Your task to perform on an android device: Clear the shopping cart on walmart. Search for "beats solo 3" on walmart, select the first entry, add it to the cart, then select checkout. Image 0: 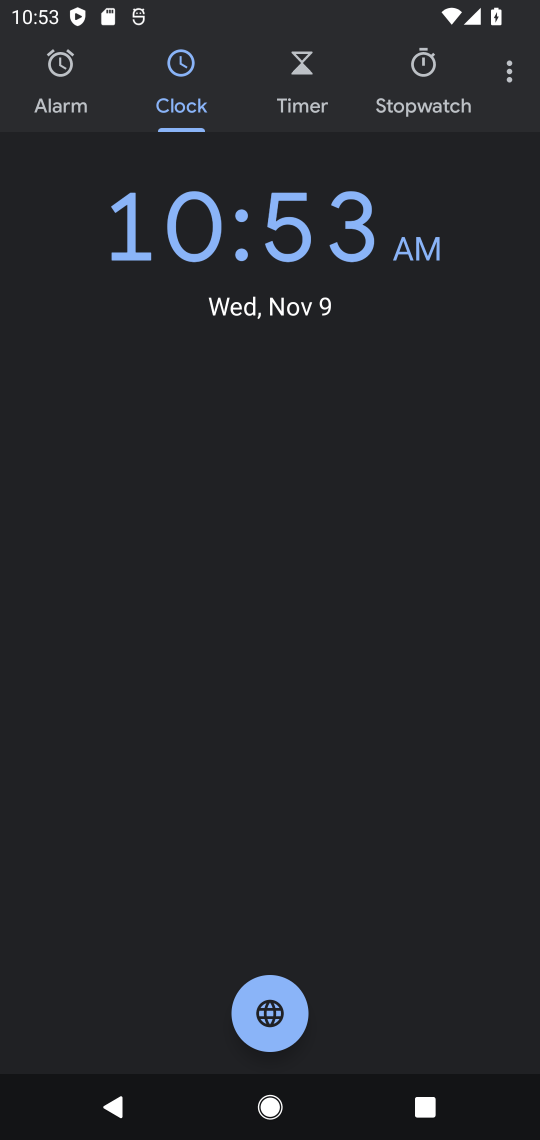
Step 0: press home button
Your task to perform on an android device: Clear the shopping cart on walmart. Search for "beats solo 3" on walmart, select the first entry, add it to the cart, then select checkout. Image 1: 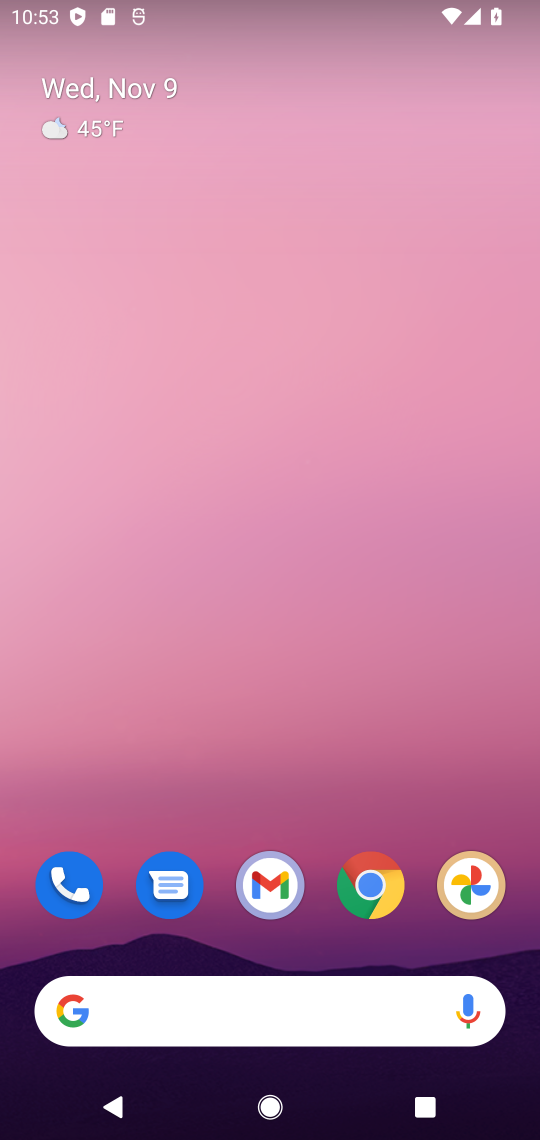
Step 1: click (370, 878)
Your task to perform on an android device: Clear the shopping cart on walmart. Search for "beats solo 3" on walmart, select the first entry, add it to the cart, then select checkout. Image 2: 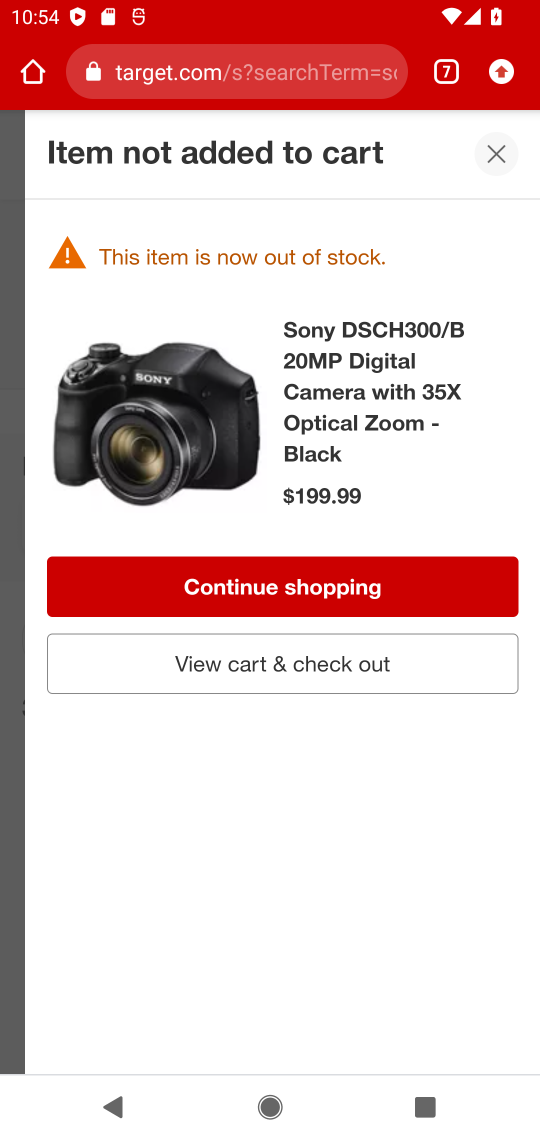
Step 2: click (448, 80)
Your task to perform on an android device: Clear the shopping cart on walmart. Search for "beats solo 3" on walmart, select the first entry, add it to the cart, then select checkout. Image 3: 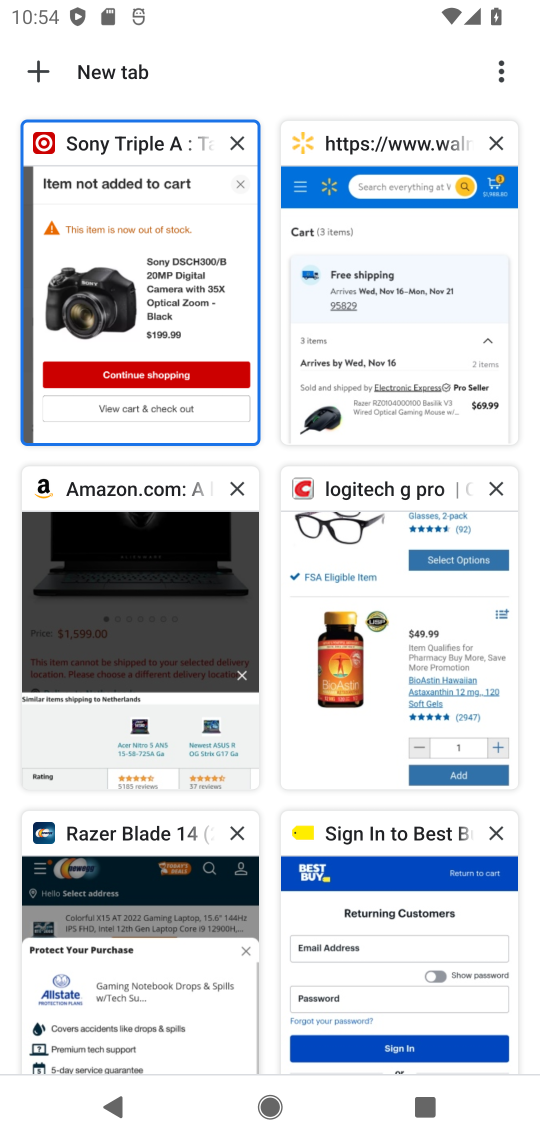
Step 3: click (444, 373)
Your task to perform on an android device: Clear the shopping cart on walmart. Search for "beats solo 3" on walmart, select the first entry, add it to the cart, then select checkout. Image 4: 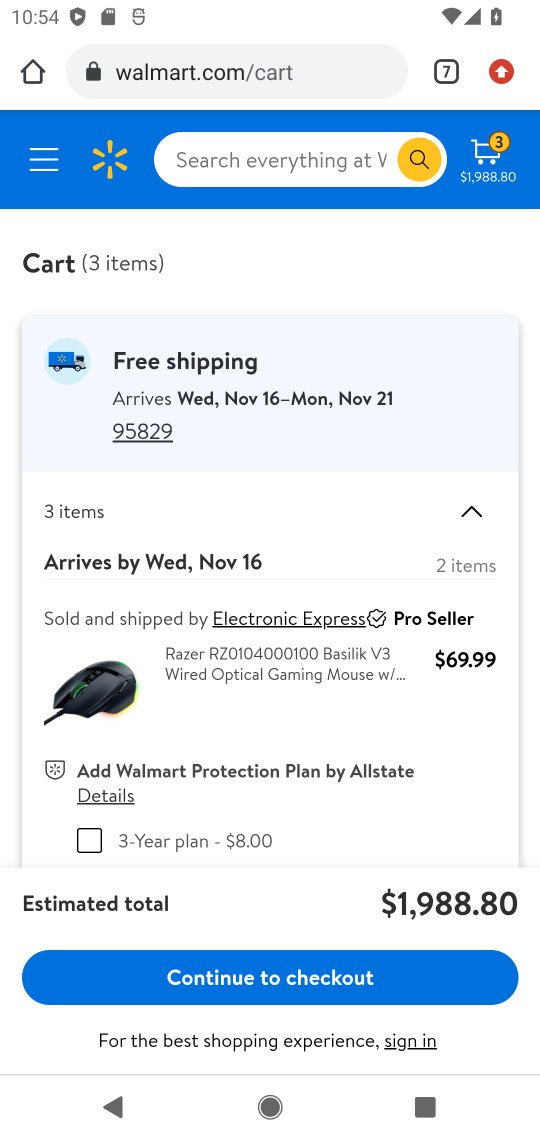
Step 4: drag from (178, 805) to (187, 498)
Your task to perform on an android device: Clear the shopping cart on walmart. Search for "beats solo 3" on walmart, select the first entry, add it to the cart, then select checkout. Image 5: 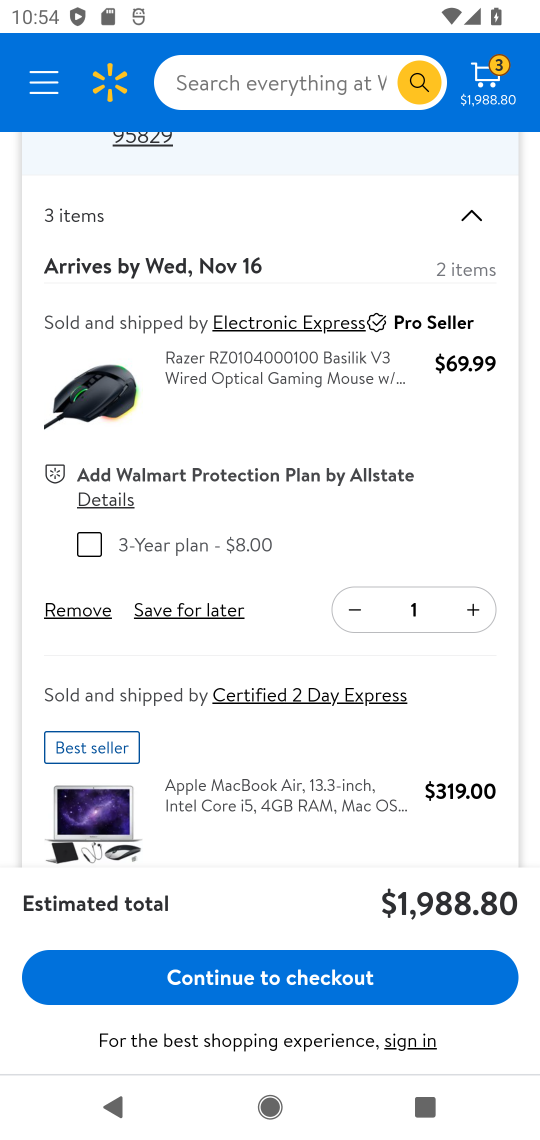
Step 5: click (91, 612)
Your task to perform on an android device: Clear the shopping cart on walmart. Search for "beats solo 3" on walmart, select the first entry, add it to the cart, then select checkout. Image 6: 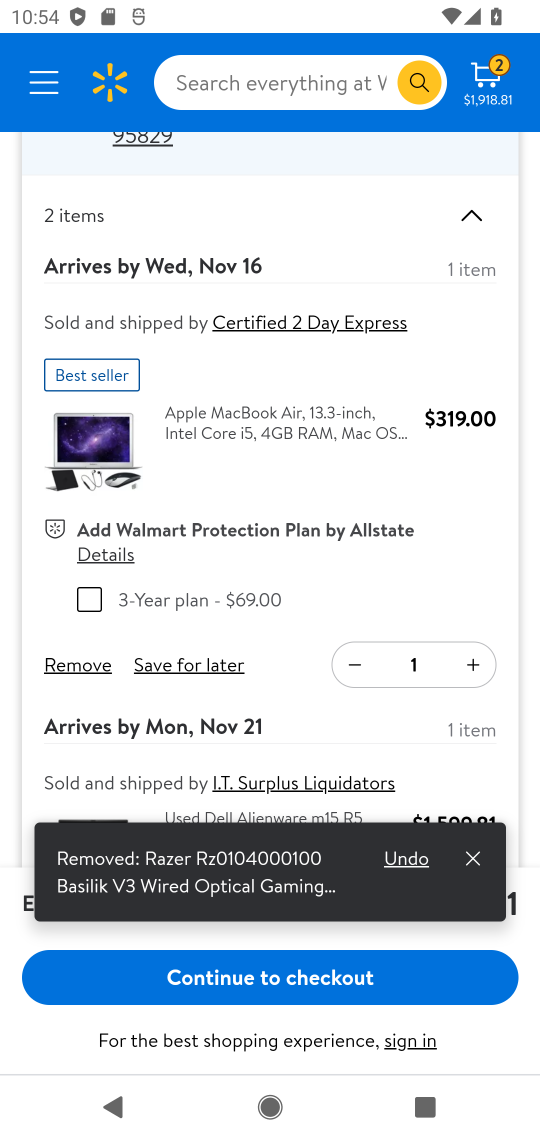
Step 6: click (80, 662)
Your task to perform on an android device: Clear the shopping cart on walmart. Search for "beats solo 3" on walmart, select the first entry, add it to the cart, then select checkout. Image 7: 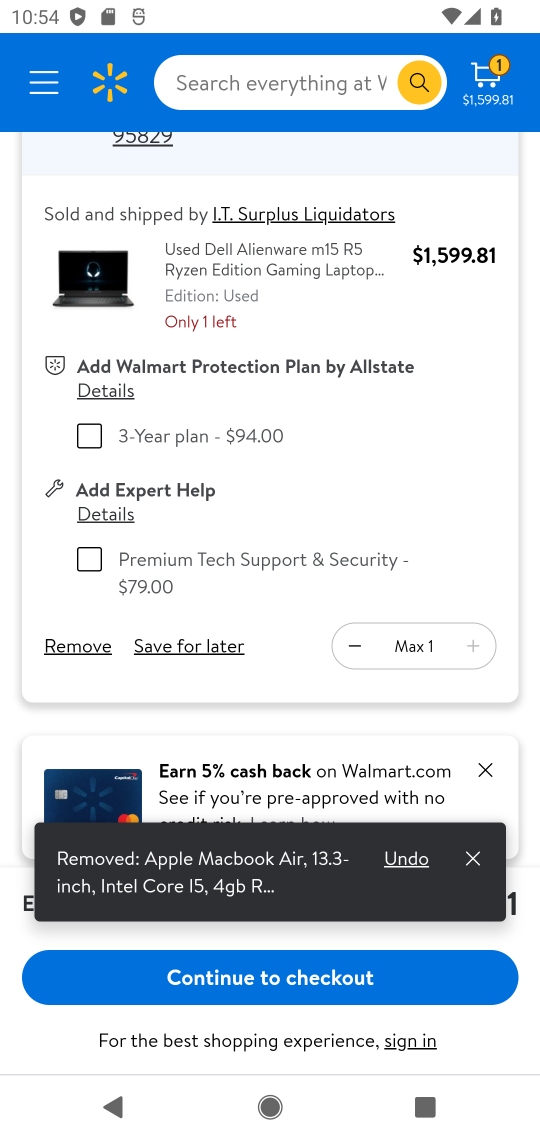
Step 7: click (75, 645)
Your task to perform on an android device: Clear the shopping cart on walmart. Search for "beats solo 3" on walmart, select the first entry, add it to the cart, then select checkout. Image 8: 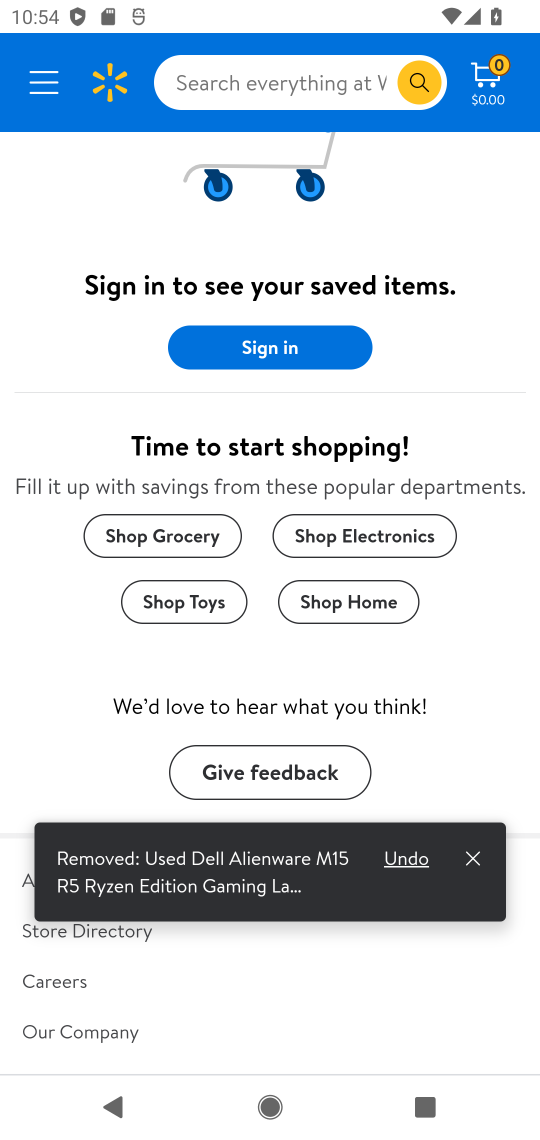
Step 8: click (278, 93)
Your task to perform on an android device: Clear the shopping cart on walmart. Search for "beats solo 3" on walmart, select the first entry, add it to the cart, then select checkout. Image 9: 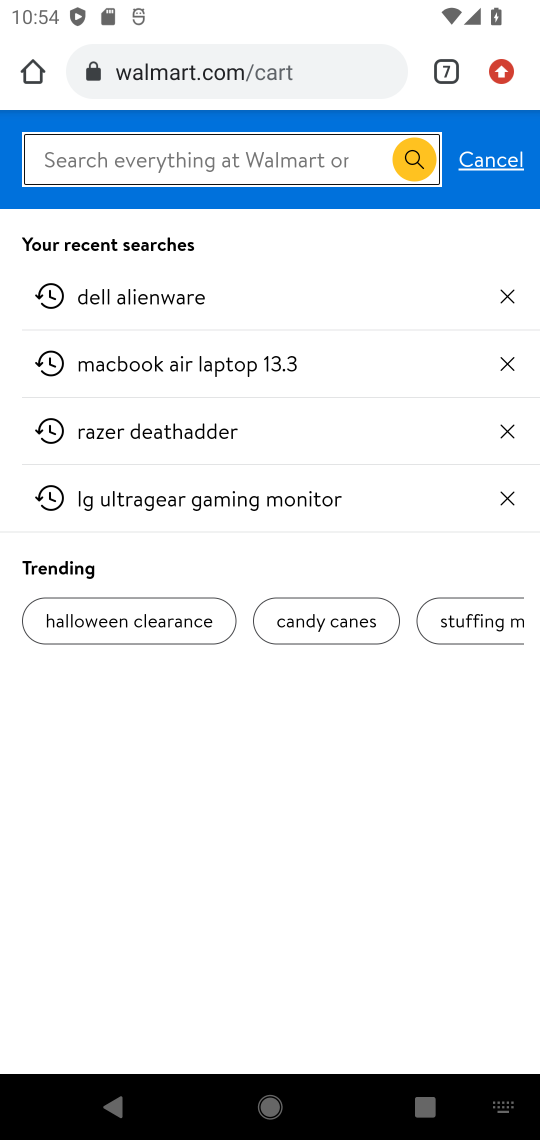
Step 9: type "beats solo 3"
Your task to perform on an android device: Clear the shopping cart on walmart. Search for "beats solo 3" on walmart, select the first entry, add it to the cart, then select checkout. Image 10: 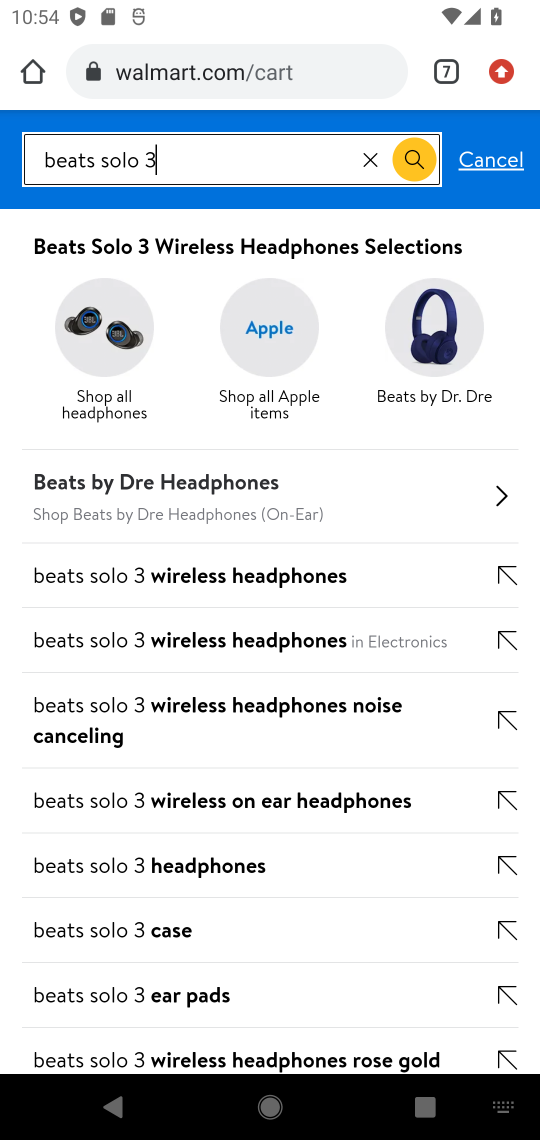
Step 10: click (277, 577)
Your task to perform on an android device: Clear the shopping cart on walmart. Search for "beats solo 3" on walmart, select the first entry, add it to the cart, then select checkout. Image 11: 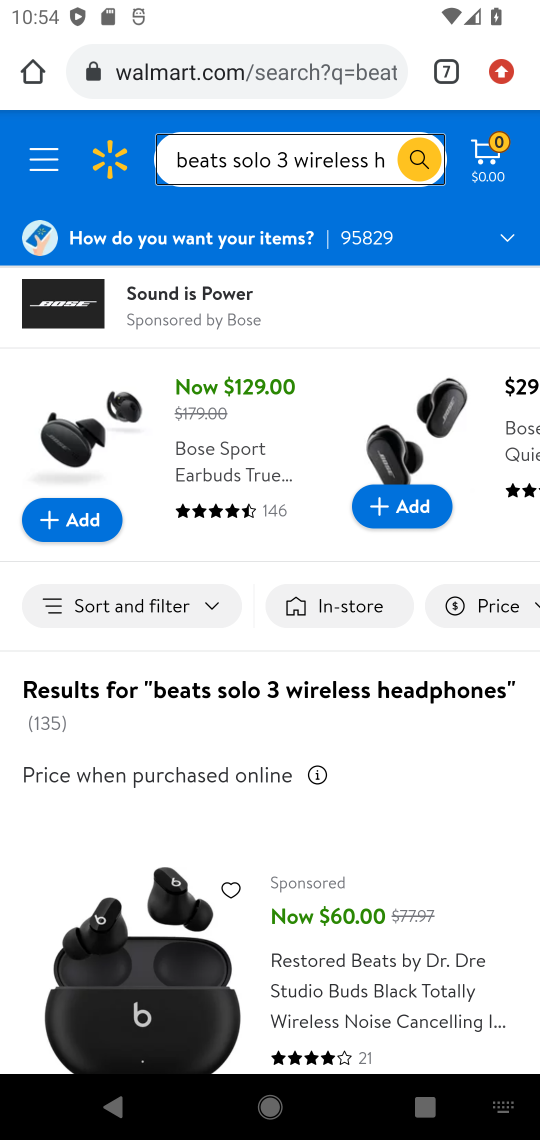
Step 11: drag from (401, 874) to (420, 344)
Your task to perform on an android device: Clear the shopping cart on walmart. Search for "beats solo 3" on walmart, select the first entry, add it to the cart, then select checkout. Image 12: 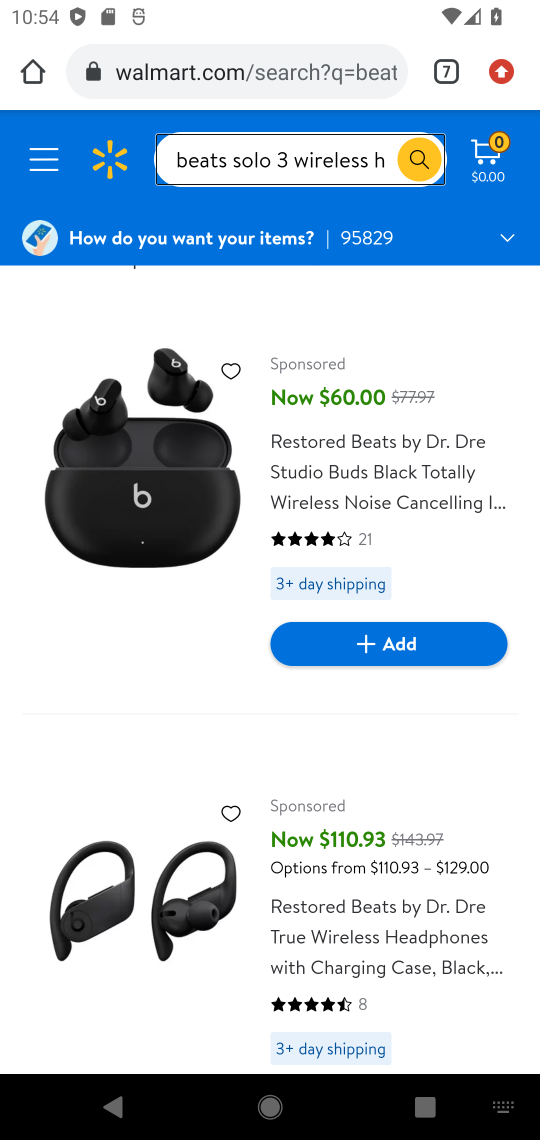
Step 12: click (400, 649)
Your task to perform on an android device: Clear the shopping cart on walmart. Search for "beats solo 3" on walmart, select the first entry, add it to the cart, then select checkout. Image 13: 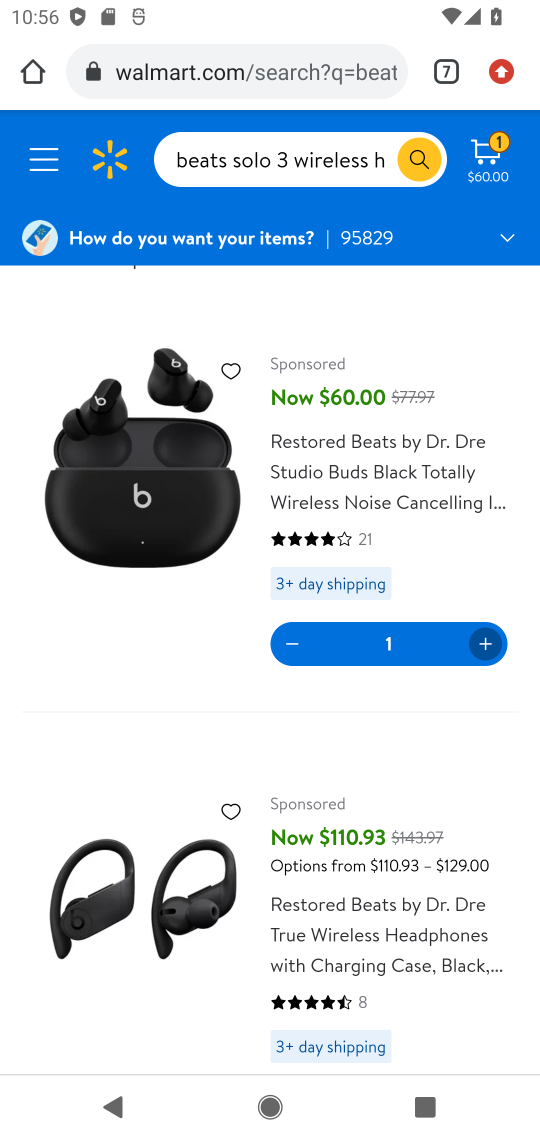
Step 13: task complete